Your task to perform on an android device: change the clock display to digital Image 0: 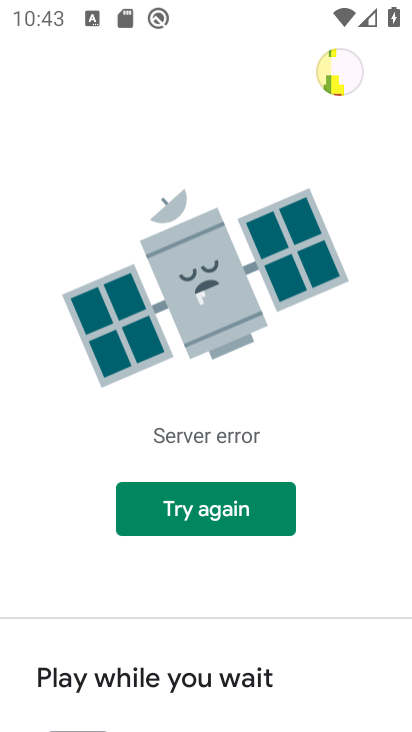
Step 0: click (203, 510)
Your task to perform on an android device: change the clock display to digital Image 1: 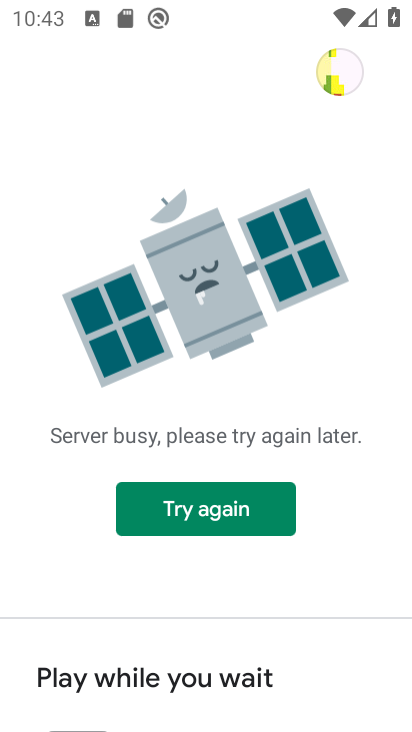
Step 1: press home button
Your task to perform on an android device: change the clock display to digital Image 2: 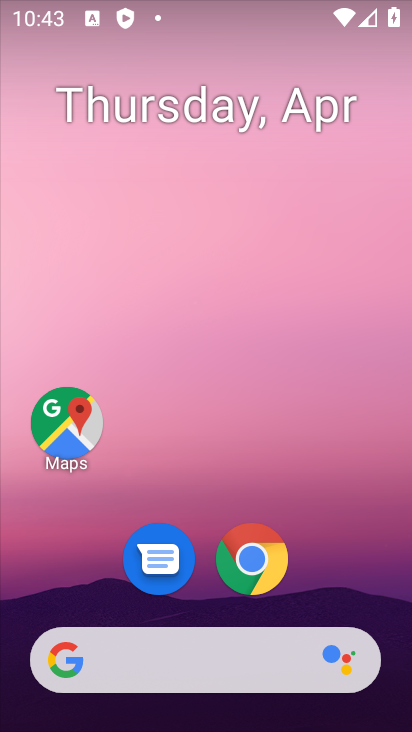
Step 2: drag from (263, 724) to (360, 31)
Your task to perform on an android device: change the clock display to digital Image 3: 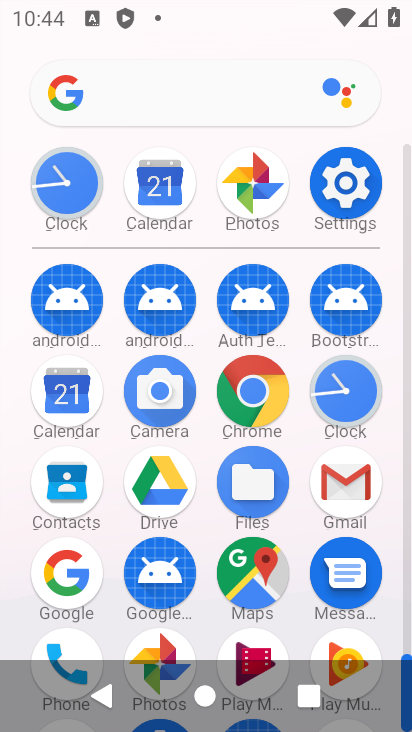
Step 3: click (356, 393)
Your task to perform on an android device: change the clock display to digital Image 4: 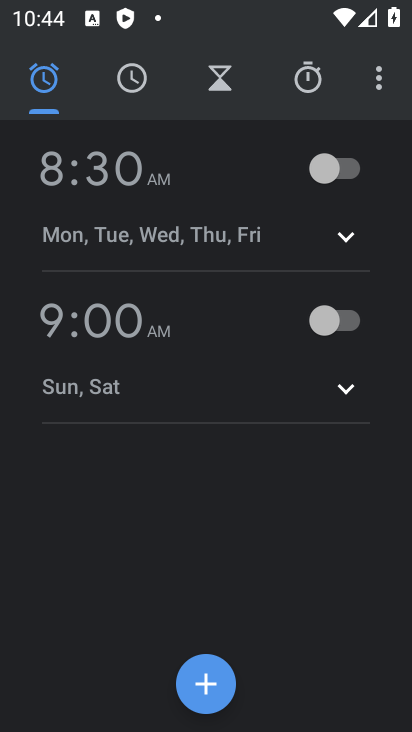
Step 4: click (376, 84)
Your task to perform on an android device: change the clock display to digital Image 5: 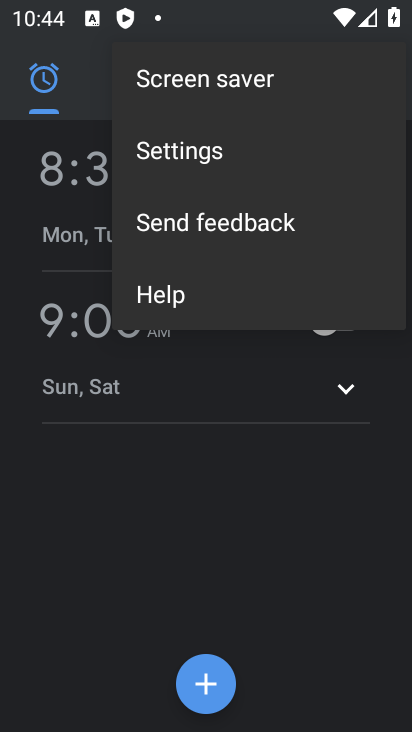
Step 5: click (192, 168)
Your task to perform on an android device: change the clock display to digital Image 6: 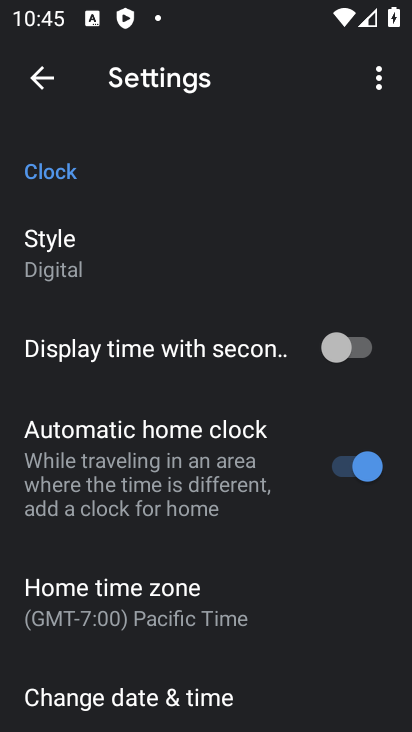
Step 6: task complete